Your task to perform on an android device: Go to settings Image 0: 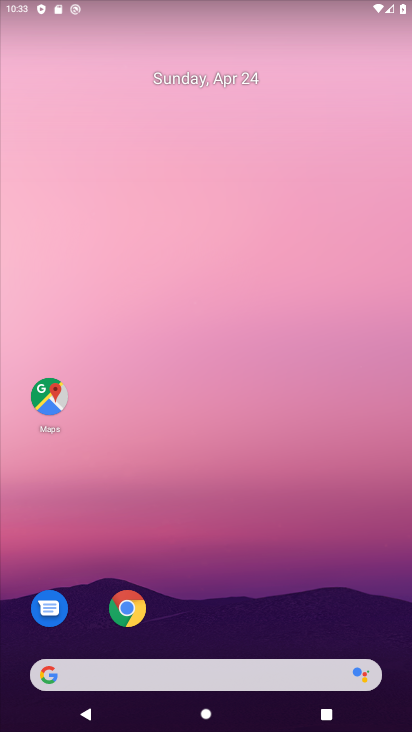
Step 0: drag from (378, 619) to (331, 67)
Your task to perform on an android device: Go to settings Image 1: 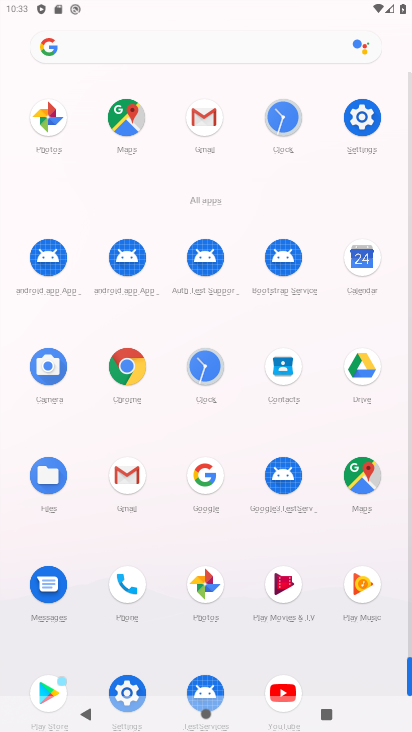
Step 1: click (408, 645)
Your task to perform on an android device: Go to settings Image 2: 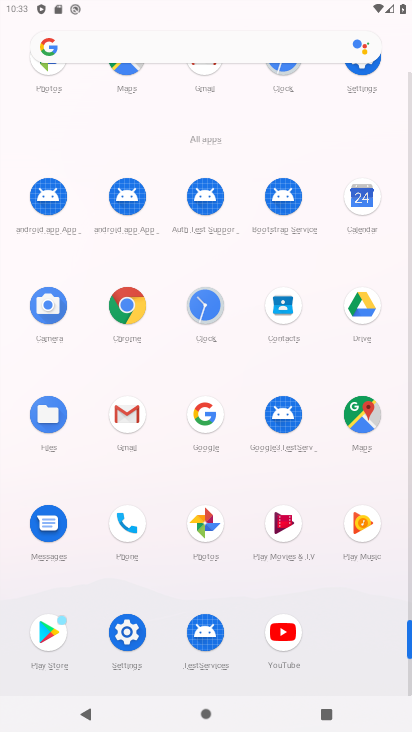
Step 2: click (125, 632)
Your task to perform on an android device: Go to settings Image 3: 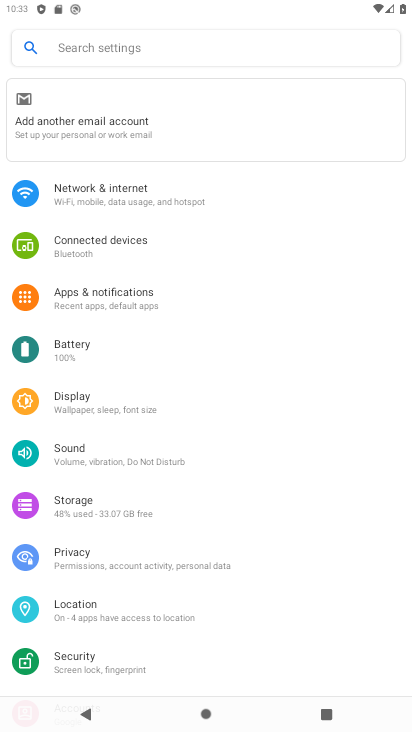
Step 3: task complete